Your task to perform on an android device: Go to sound settings Image 0: 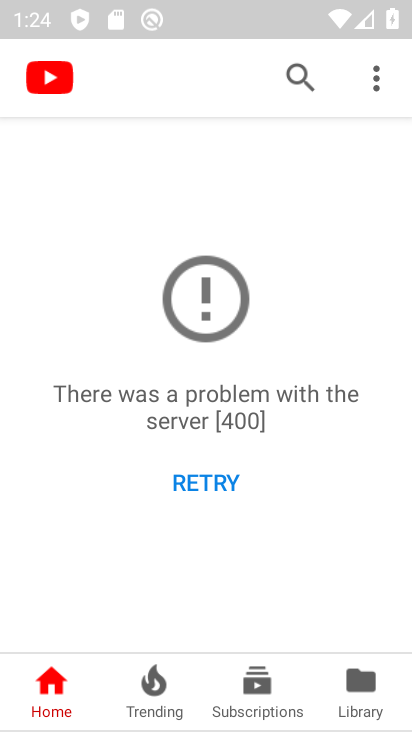
Step 0: press home button
Your task to perform on an android device: Go to sound settings Image 1: 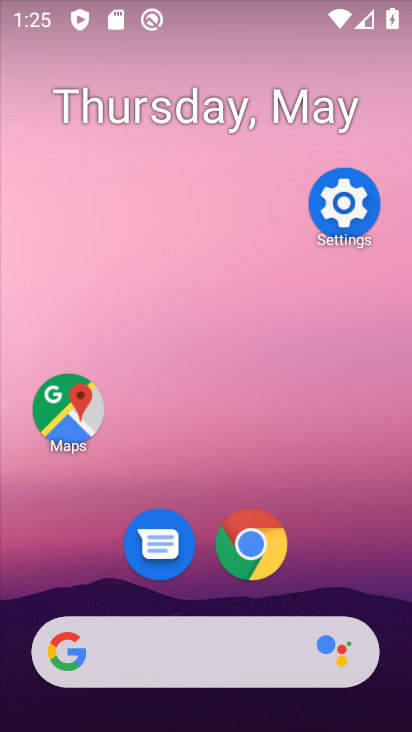
Step 1: click (357, 187)
Your task to perform on an android device: Go to sound settings Image 2: 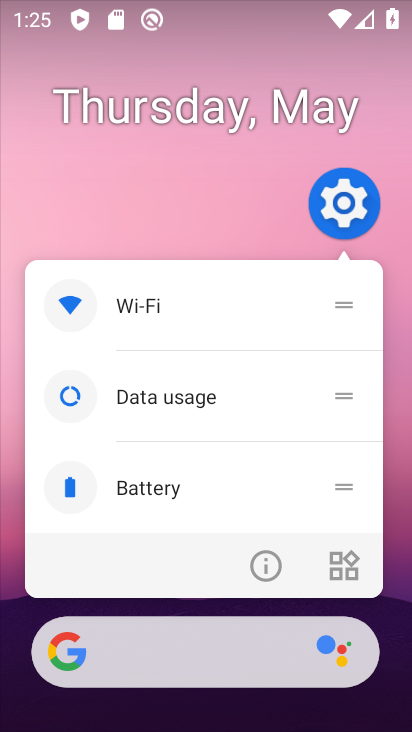
Step 2: click (351, 212)
Your task to perform on an android device: Go to sound settings Image 3: 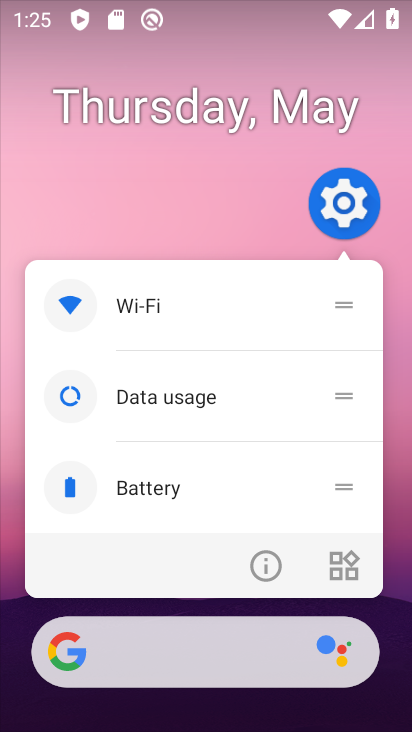
Step 3: click (351, 212)
Your task to perform on an android device: Go to sound settings Image 4: 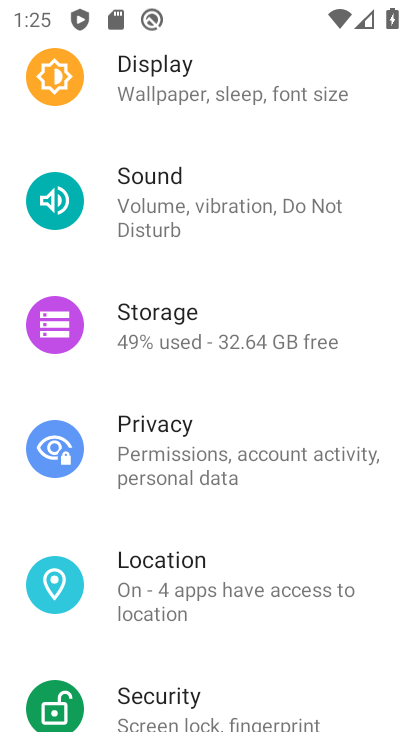
Step 4: click (205, 217)
Your task to perform on an android device: Go to sound settings Image 5: 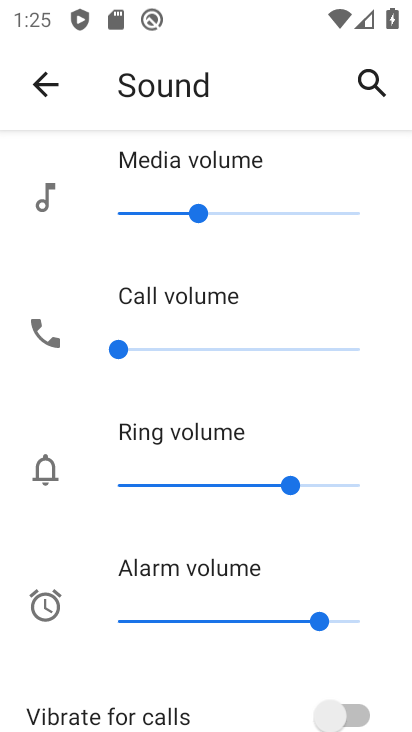
Step 5: task complete